Your task to perform on an android device: Do I have any events tomorrow? Image 0: 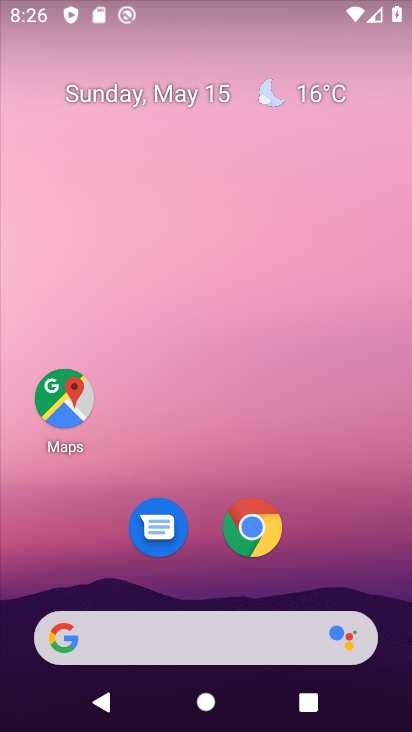
Step 0: drag from (362, 583) to (273, 1)
Your task to perform on an android device: Do I have any events tomorrow? Image 1: 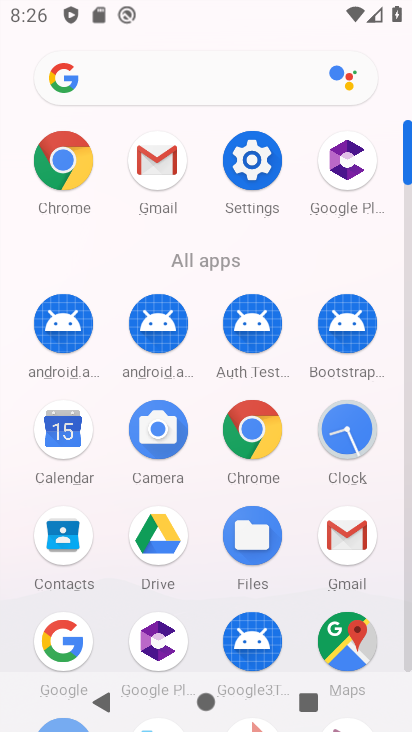
Step 1: click (54, 427)
Your task to perform on an android device: Do I have any events tomorrow? Image 2: 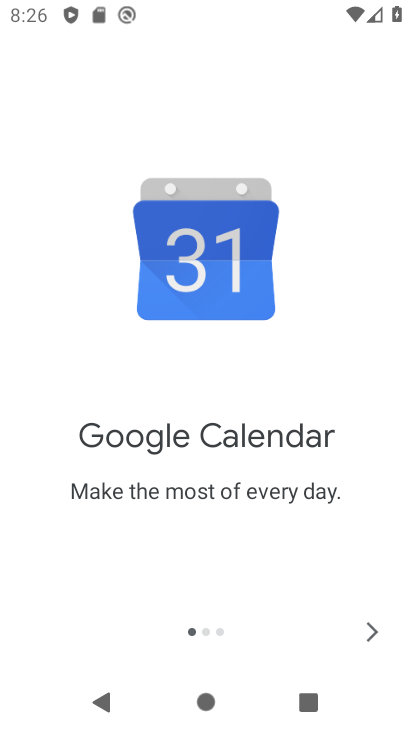
Step 2: click (366, 640)
Your task to perform on an android device: Do I have any events tomorrow? Image 3: 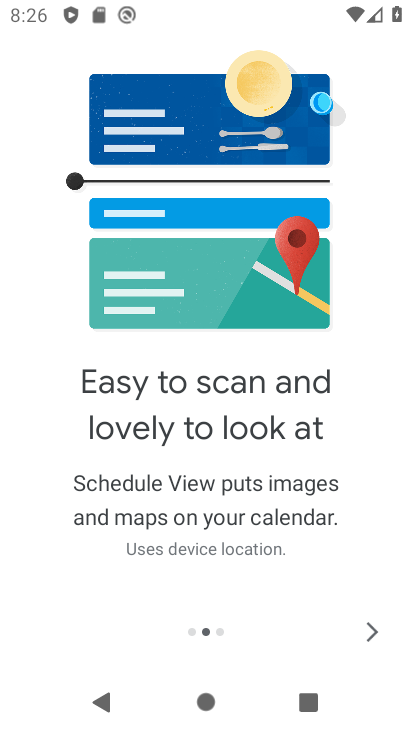
Step 3: click (366, 640)
Your task to perform on an android device: Do I have any events tomorrow? Image 4: 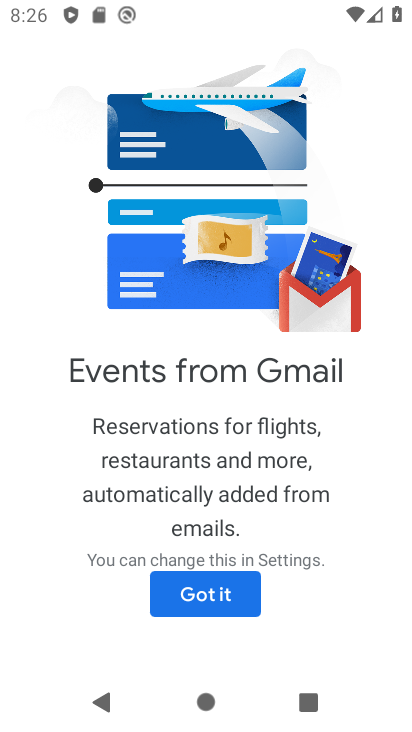
Step 4: click (176, 604)
Your task to perform on an android device: Do I have any events tomorrow? Image 5: 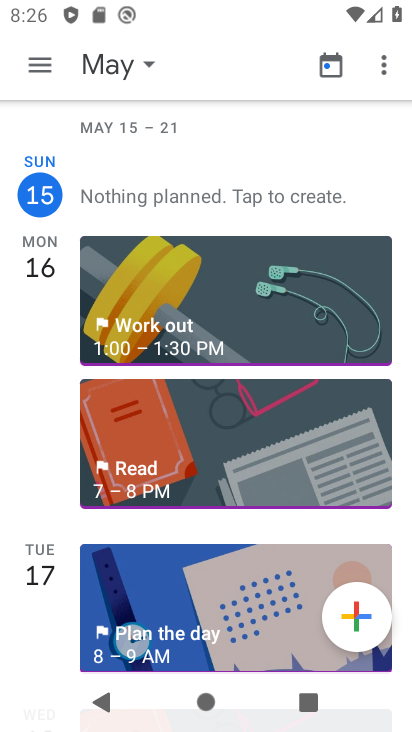
Step 5: click (54, 70)
Your task to perform on an android device: Do I have any events tomorrow? Image 6: 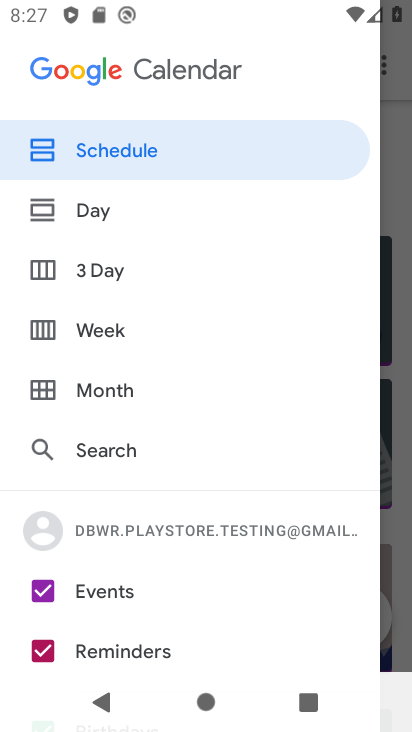
Step 6: drag from (86, 554) to (80, 271)
Your task to perform on an android device: Do I have any events tomorrow? Image 7: 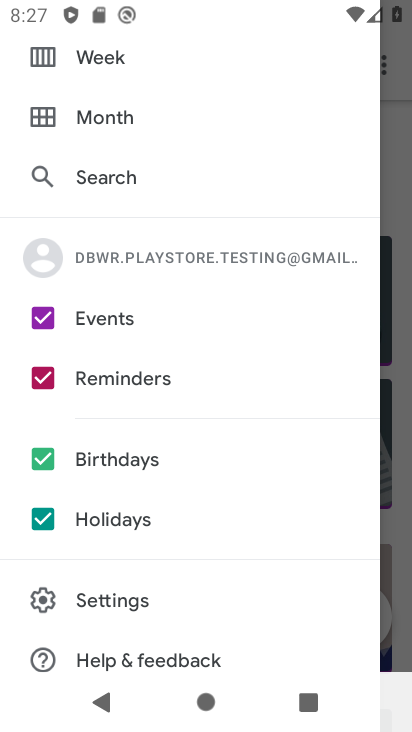
Step 7: click (38, 381)
Your task to perform on an android device: Do I have any events tomorrow? Image 8: 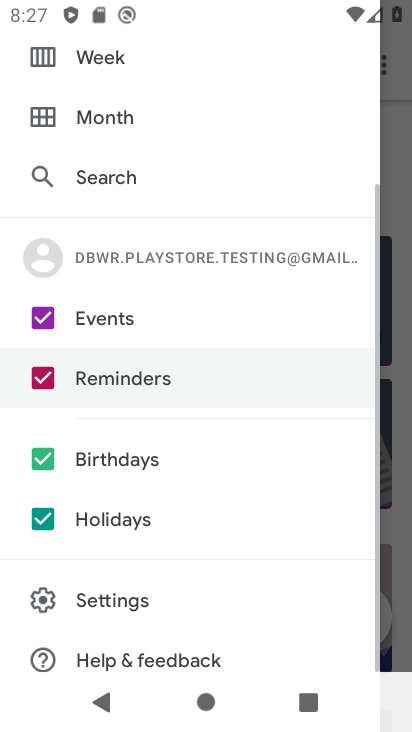
Step 8: click (50, 456)
Your task to perform on an android device: Do I have any events tomorrow? Image 9: 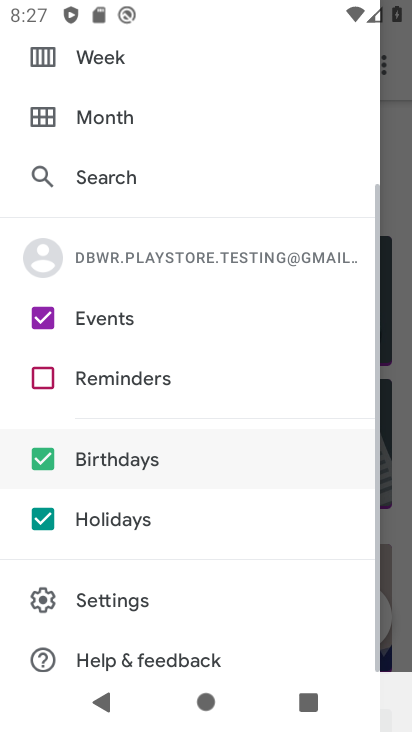
Step 9: click (49, 515)
Your task to perform on an android device: Do I have any events tomorrow? Image 10: 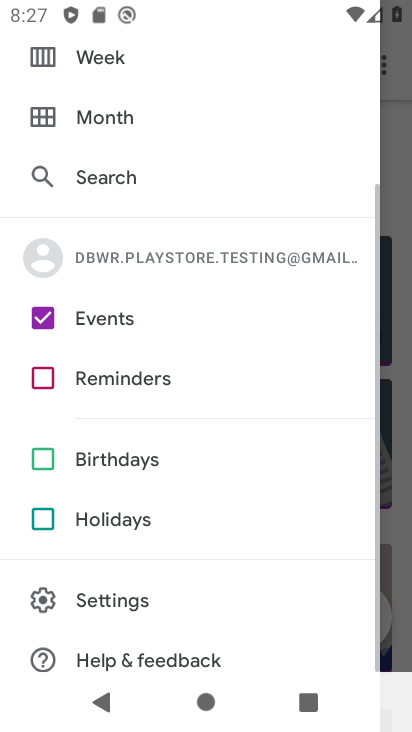
Step 10: drag from (175, 228) to (183, 530)
Your task to perform on an android device: Do I have any events tomorrow? Image 11: 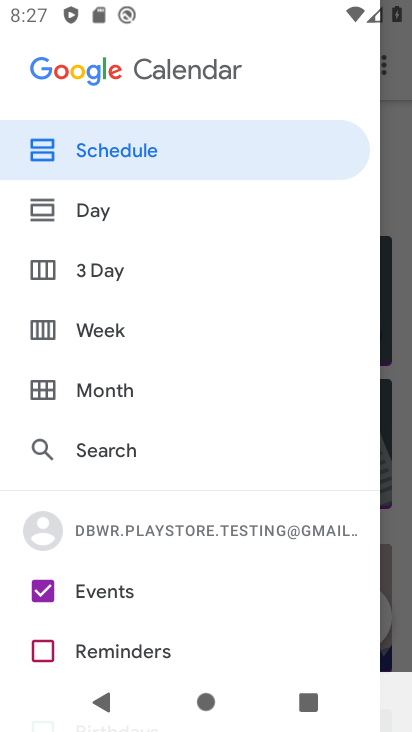
Step 11: click (76, 160)
Your task to perform on an android device: Do I have any events tomorrow? Image 12: 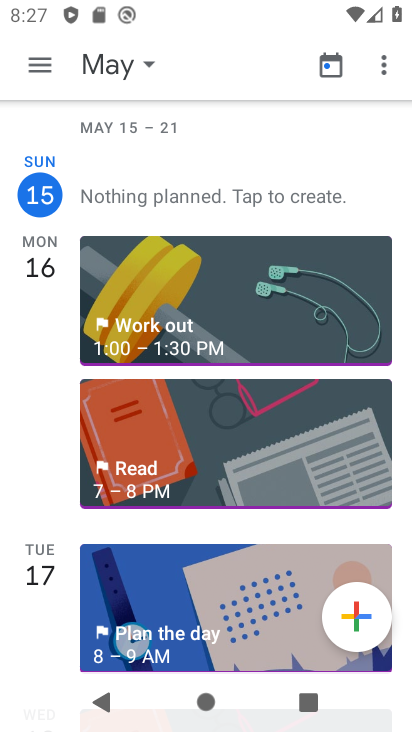
Step 12: click (233, 341)
Your task to perform on an android device: Do I have any events tomorrow? Image 13: 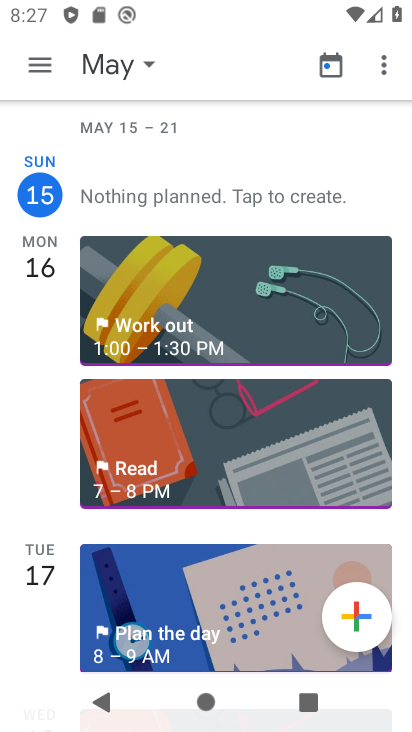
Step 13: click (216, 313)
Your task to perform on an android device: Do I have any events tomorrow? Image 14: 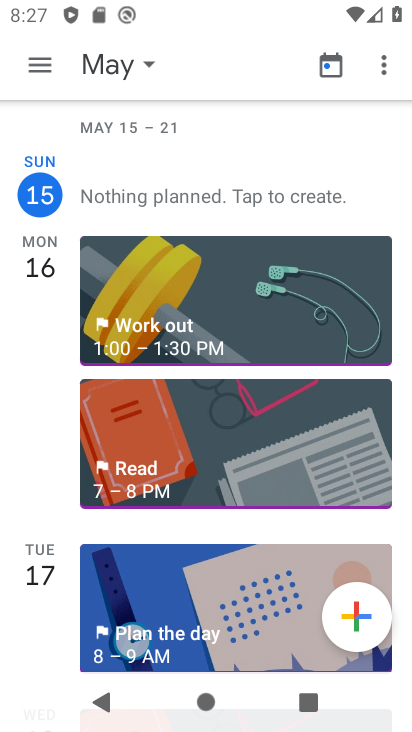
Step 14: click (300, 317)
Your task to perform on an android device: Do I have any events tomorrow? Image 15: 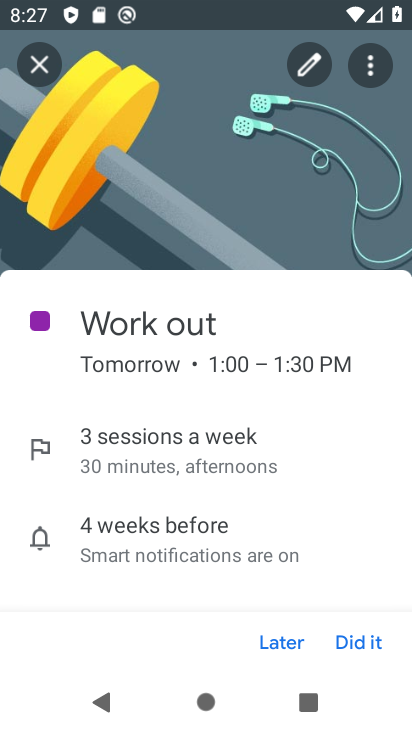
Step 15: task complete